Your task to perform on an android device: toggle sleep mode Image 0: 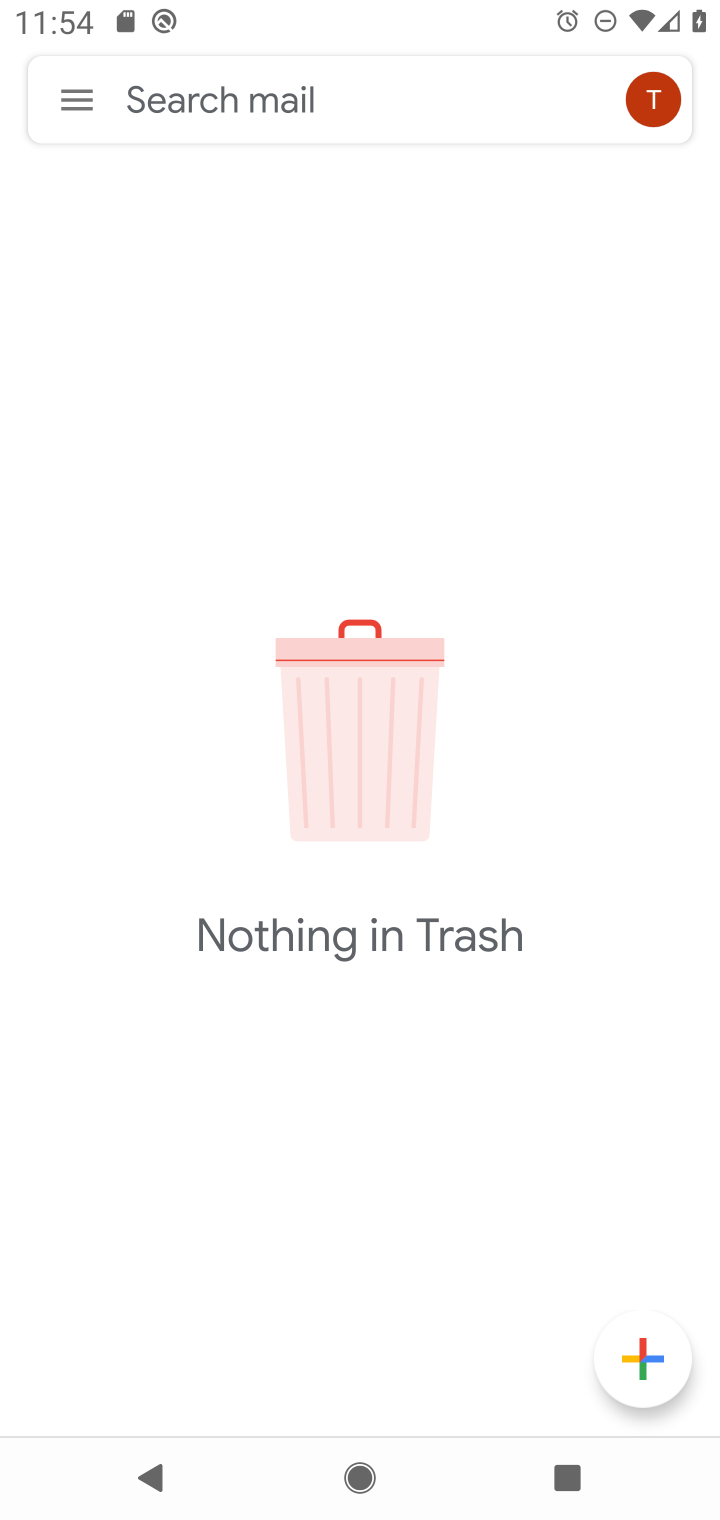
Step 0: press home button
Your task to perform on an android device: toggle sleep mode Image 1: 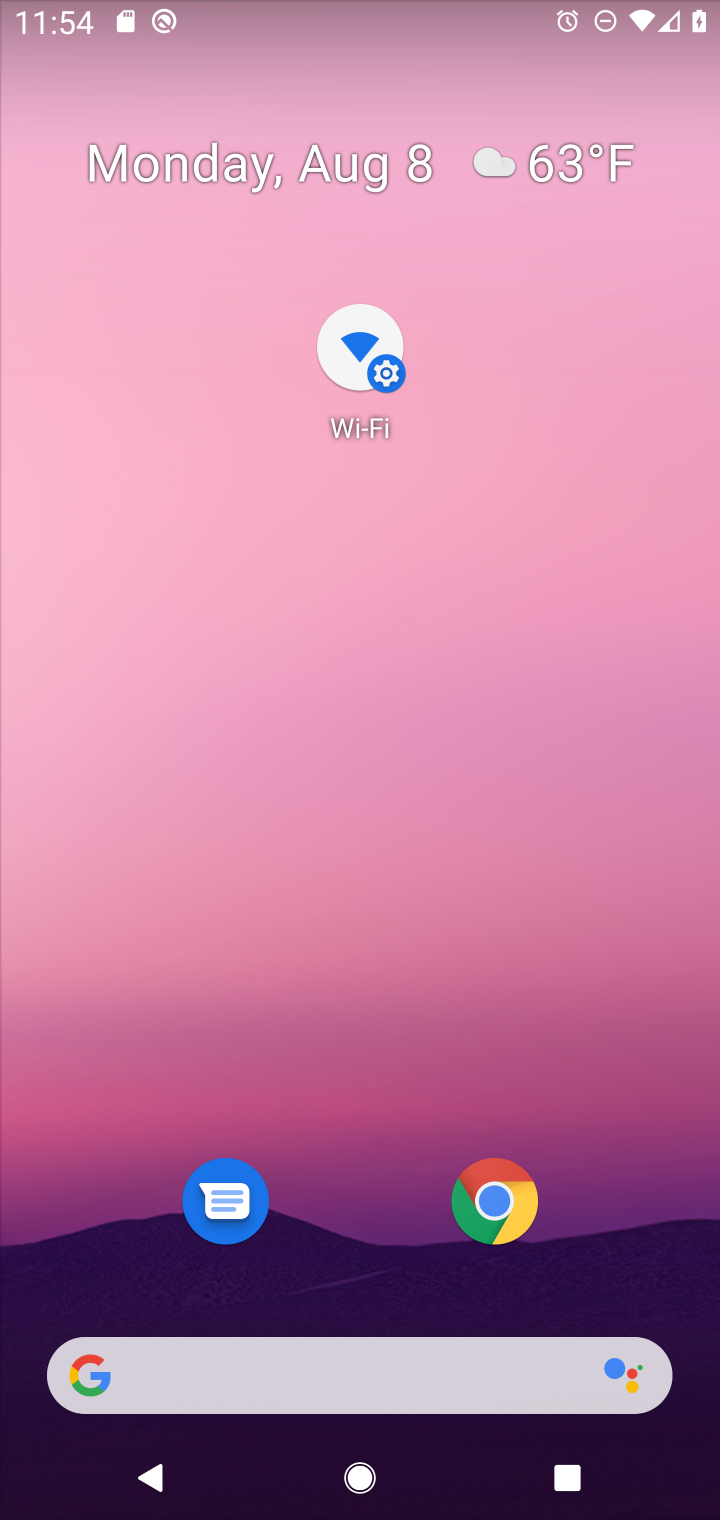
Step 1: drag from (587, 1043) to (602, 288)
Your task to perform on an android device: toggle sleep mode Image 2: 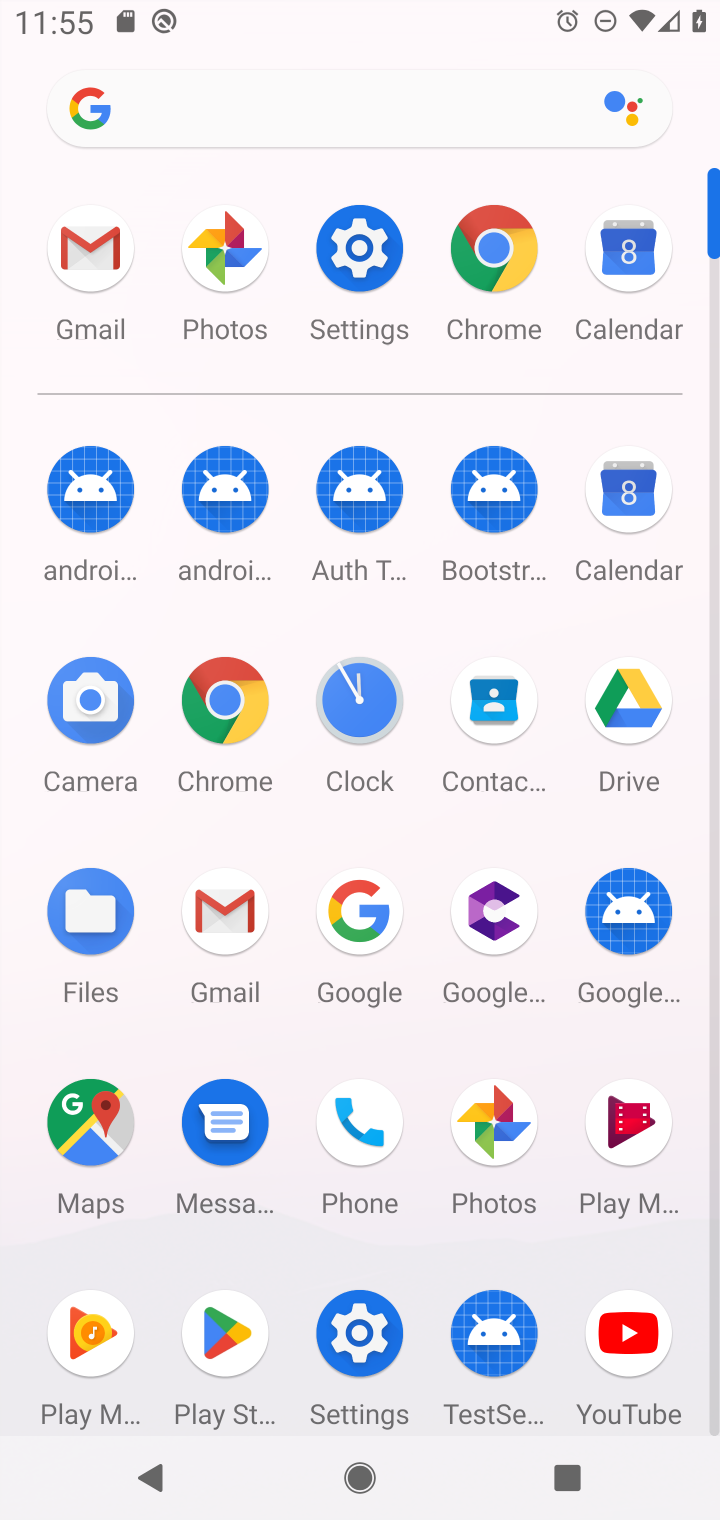
Step 2: click (363, 253)
Your task to perform on an android device: toggle sleep mode Image 3: 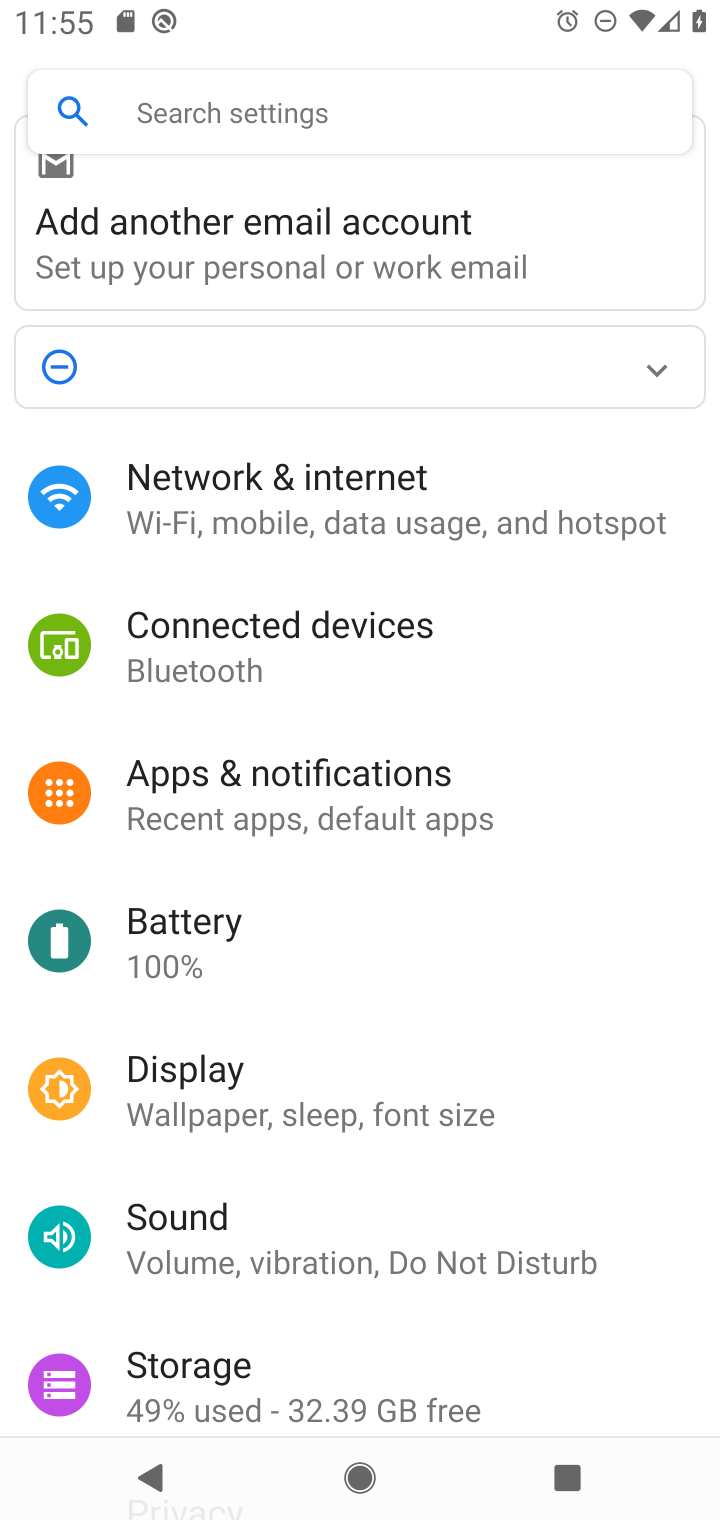
Step 3: drag from (588, 1159) to (567, 759)
Your task to perform on an android device: toggle sleep mode Image 4: 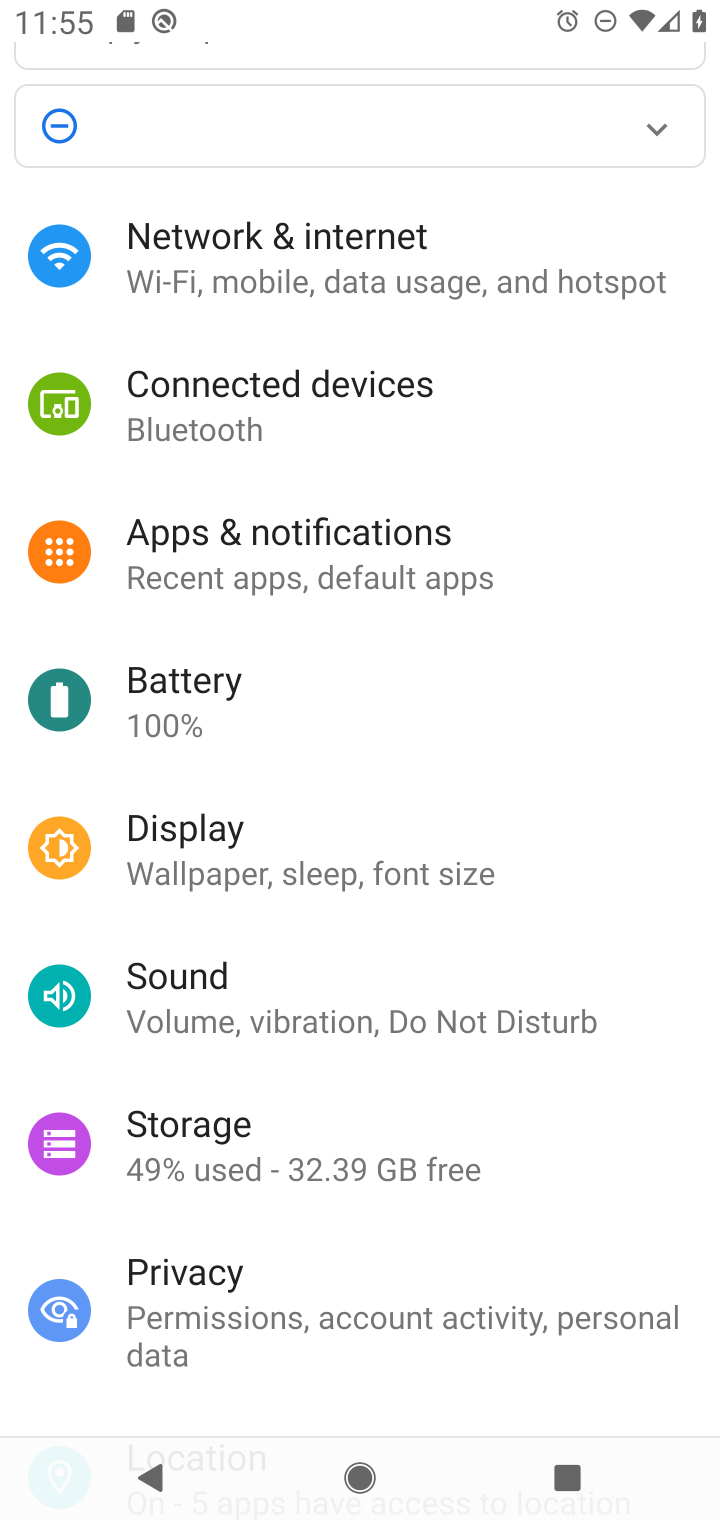
Step 4: drag from (641, 1056) to (637, 718)
Your task to perform on an android device: toggle sleep mode Image 5: 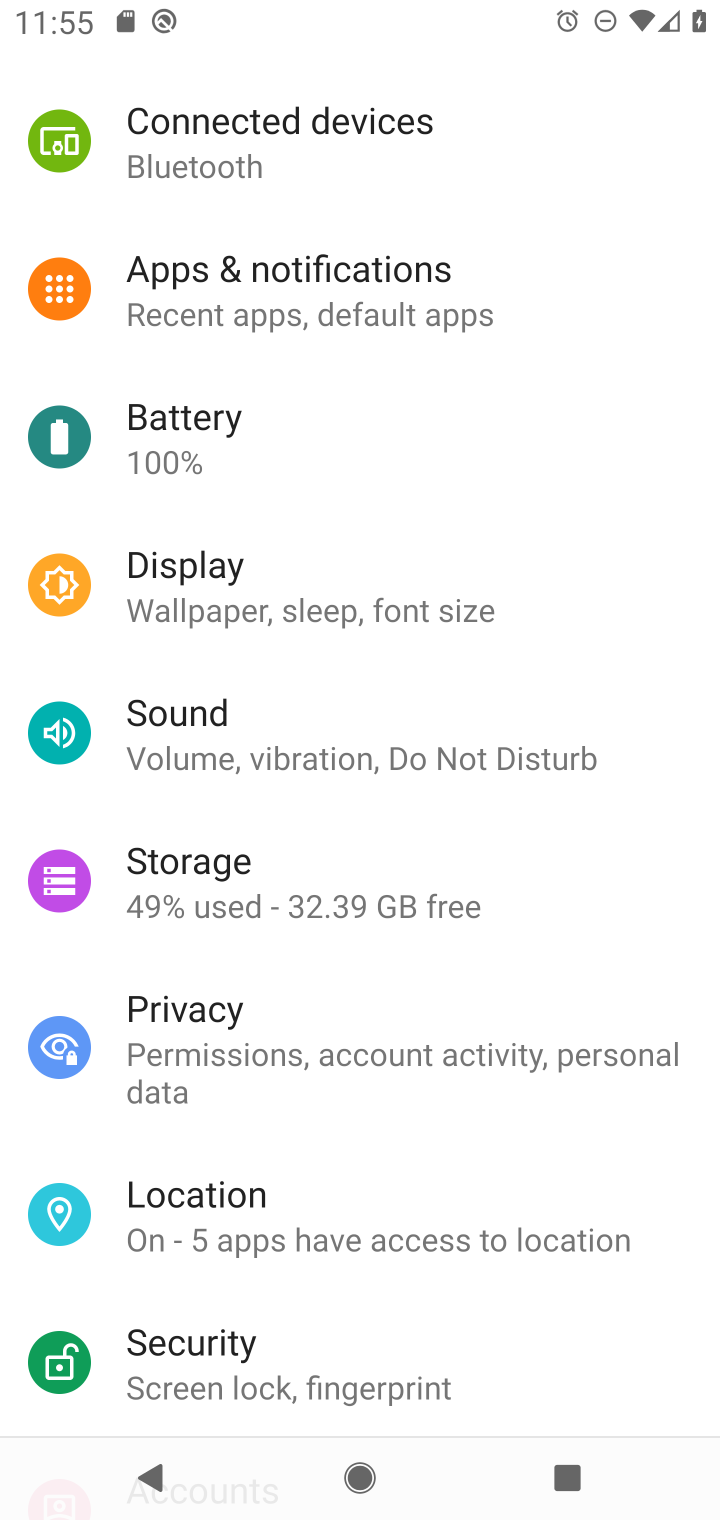
Step 5: drag from (590, 1123) to (620, 774)
Your task to perform on an android device: toggle sleep mode Image 6: 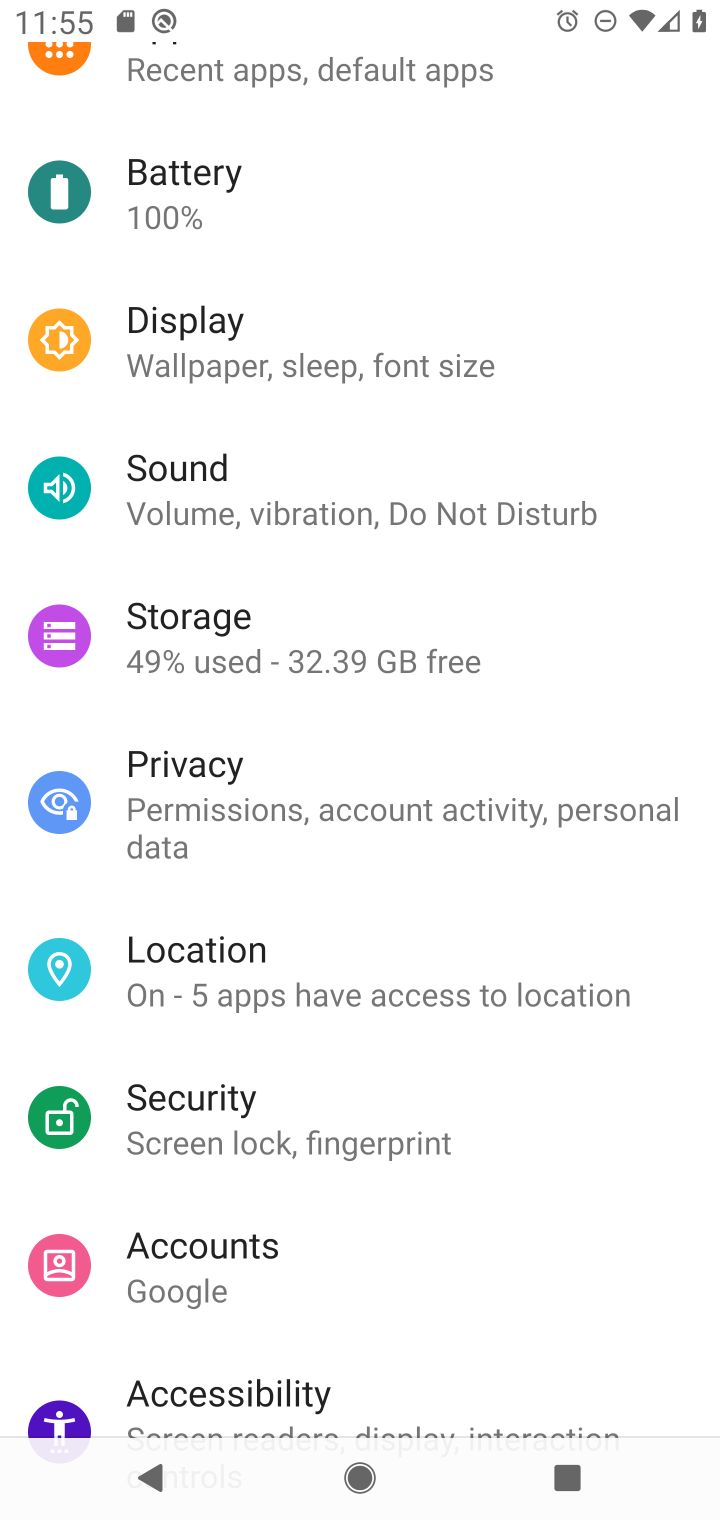
Step 6: drag from (595, 1196) to (606, 722)
Your task to perform on an android device: toggle sleep mode Image 7: 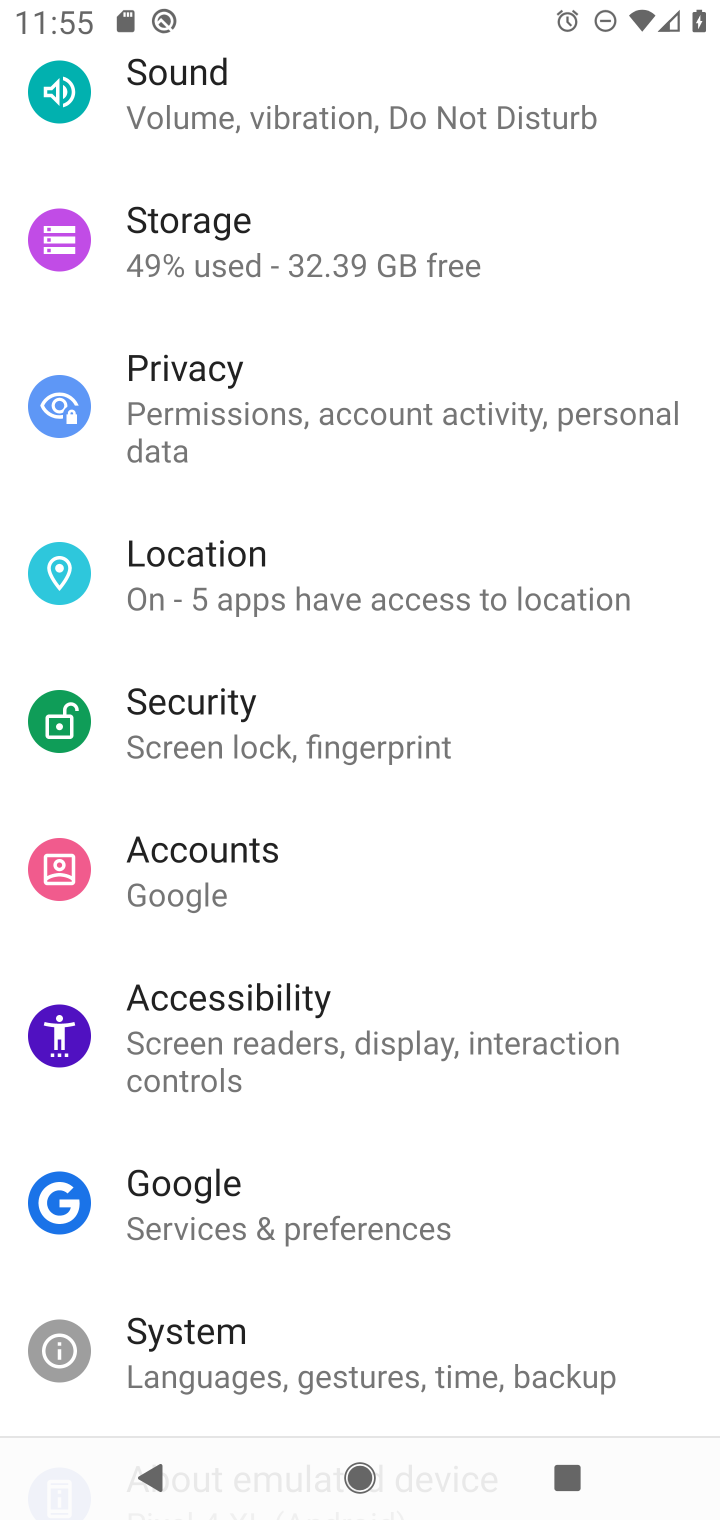
Step 7: drag from (544, 1157) to (608, 690)
Your task to perform on an android device: toggle sleep mode Image 8: 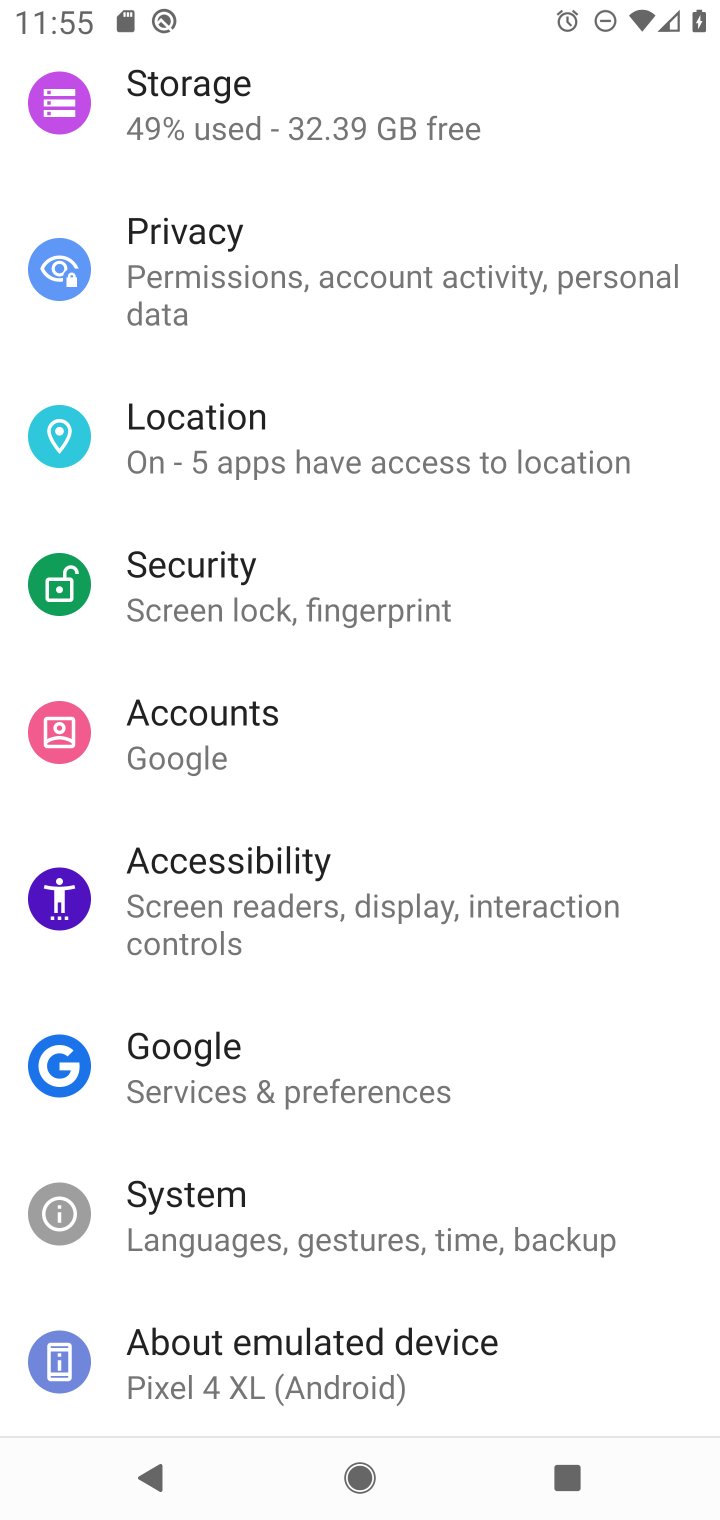
Step 8: drag from (610, 1056) to (609, 662)
Your task to perform on an android device: toggle sleep mode Image 9: 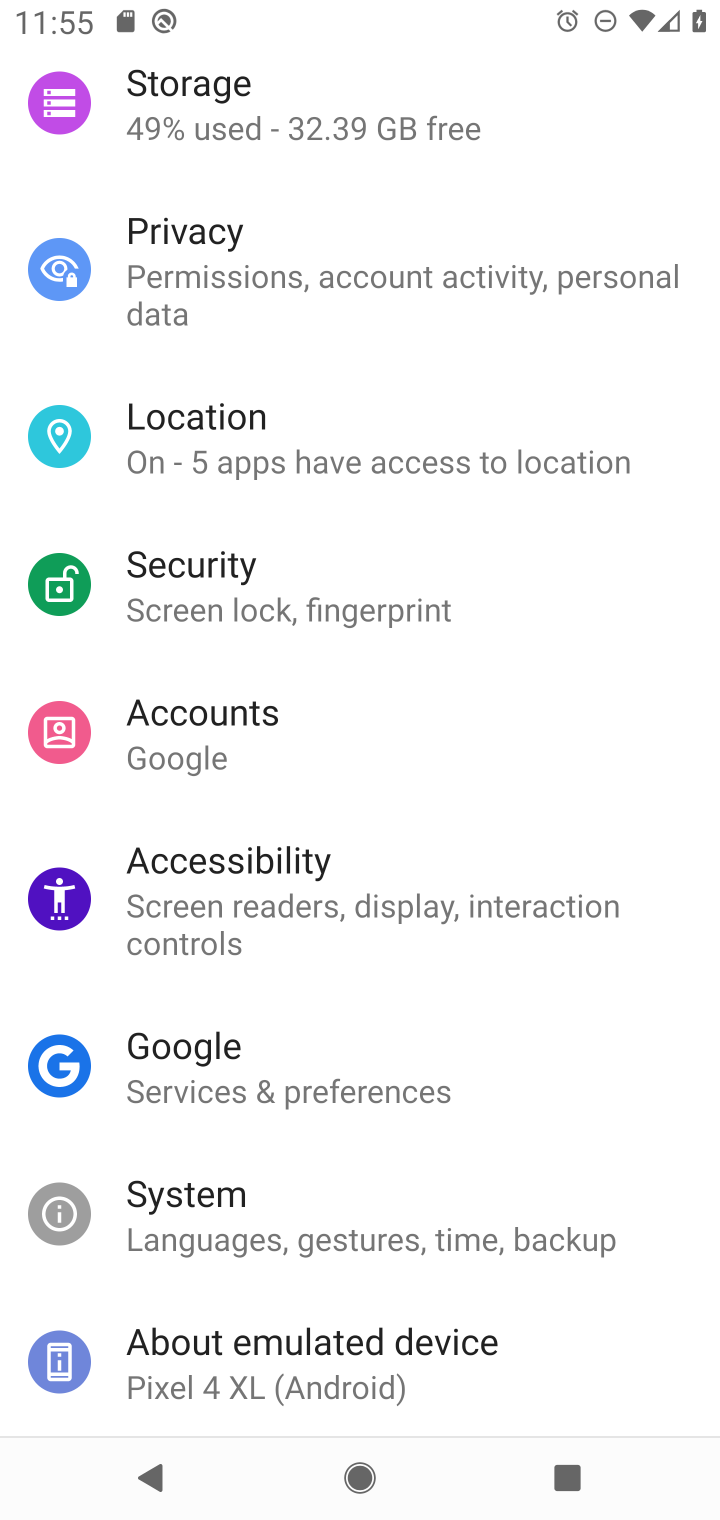
Step 9: drag from (624, 550) to (651, 830)
Your task to perform on an android device: toggle sleep mode Image 10: 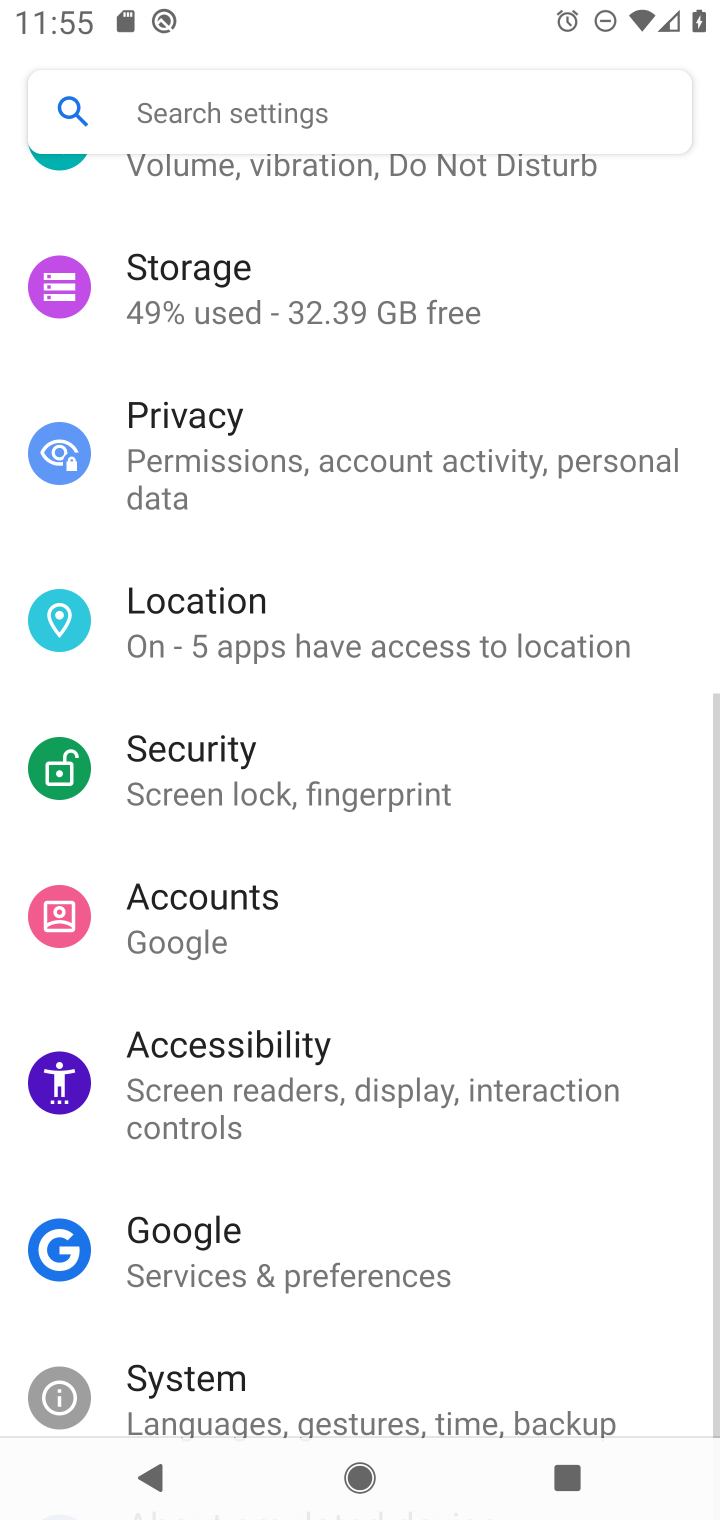
Step 10: drag from (654, 587) to (674, 962)
Your task to perform on an android device: toggle sleep mode Image 11: 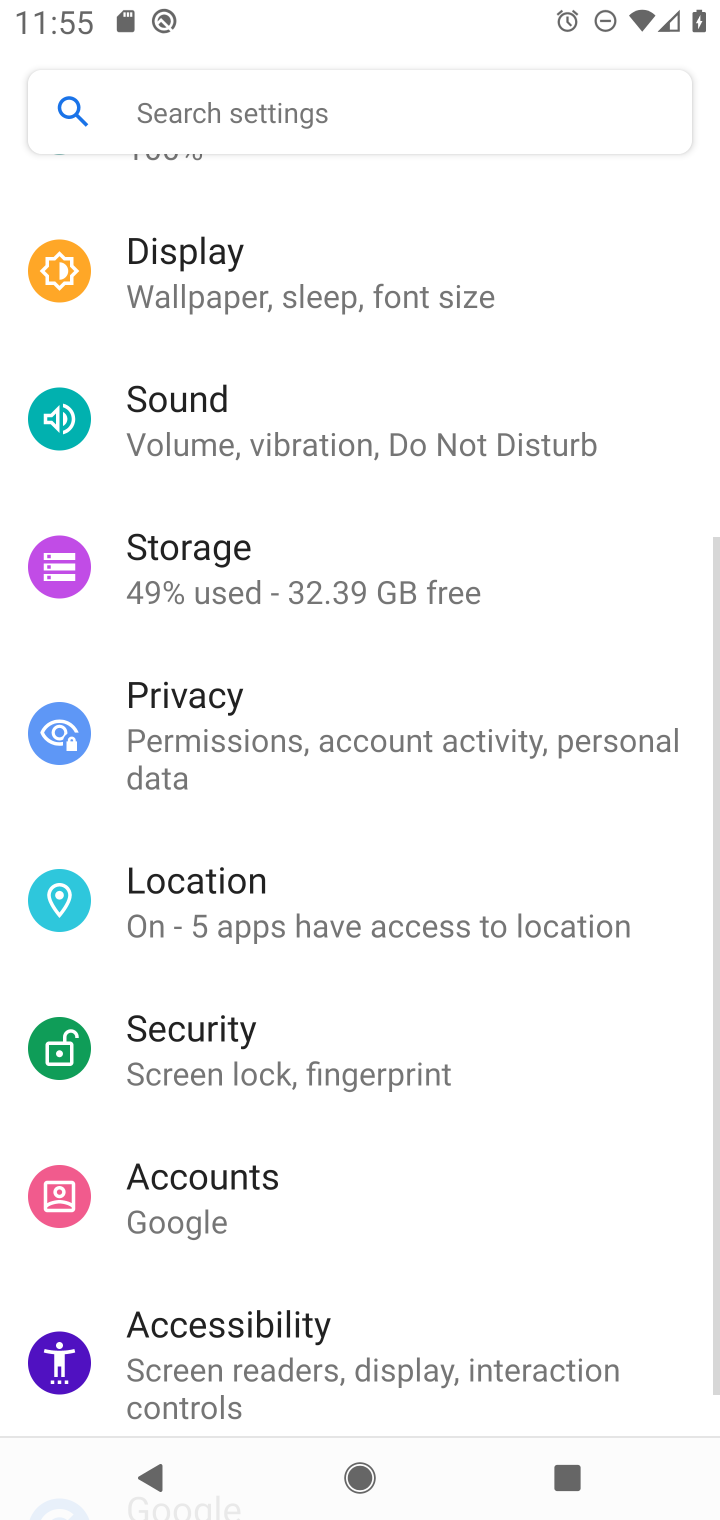
Step 11: drag from (637, 272) to (643, 718)
Your task to perform on an android device: toggle sleep mode Image 12: 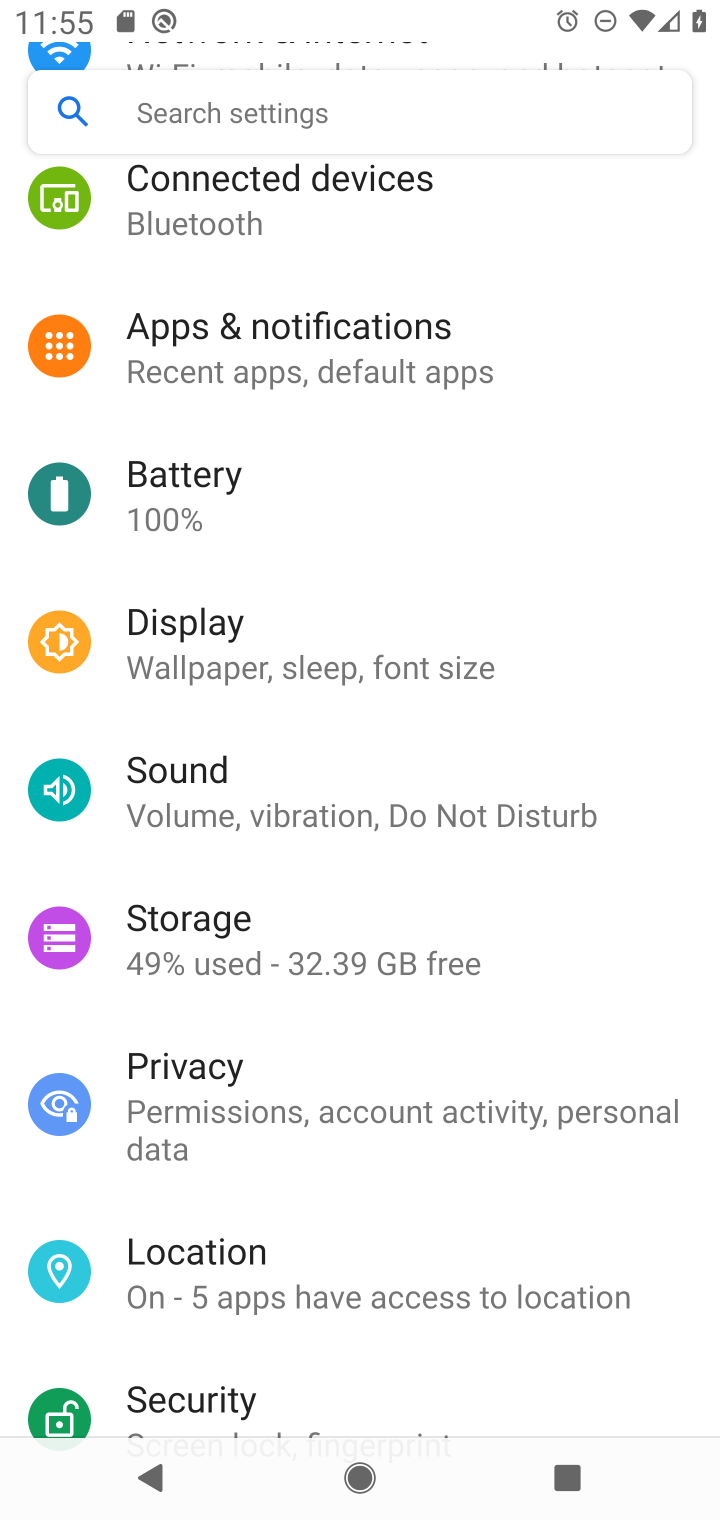
Step 12: click (360, 663)
Your task to perform on an android device: toggle sleep mode Image 13: 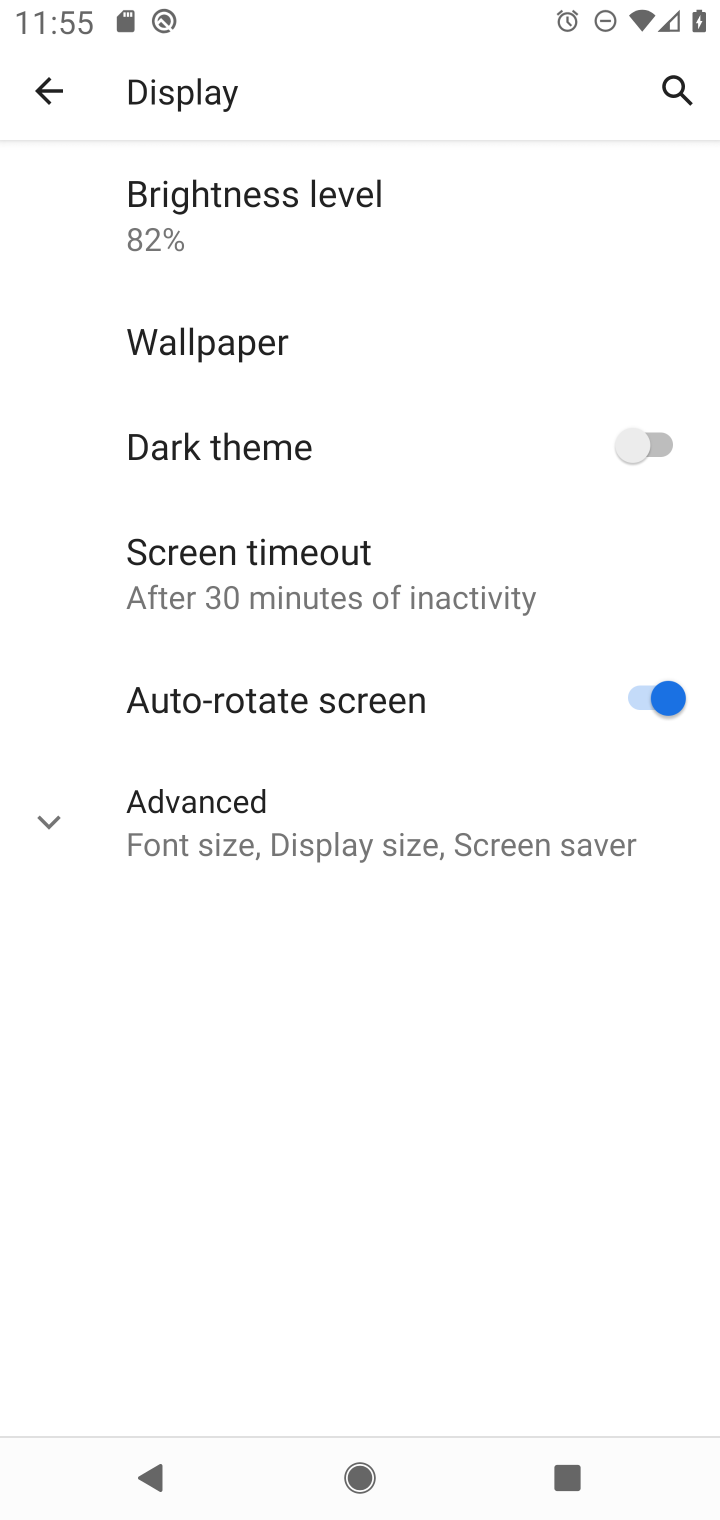
Step 13: click (388, 845)
Your task to perform on an android device: toggle sleep mode Image 14: 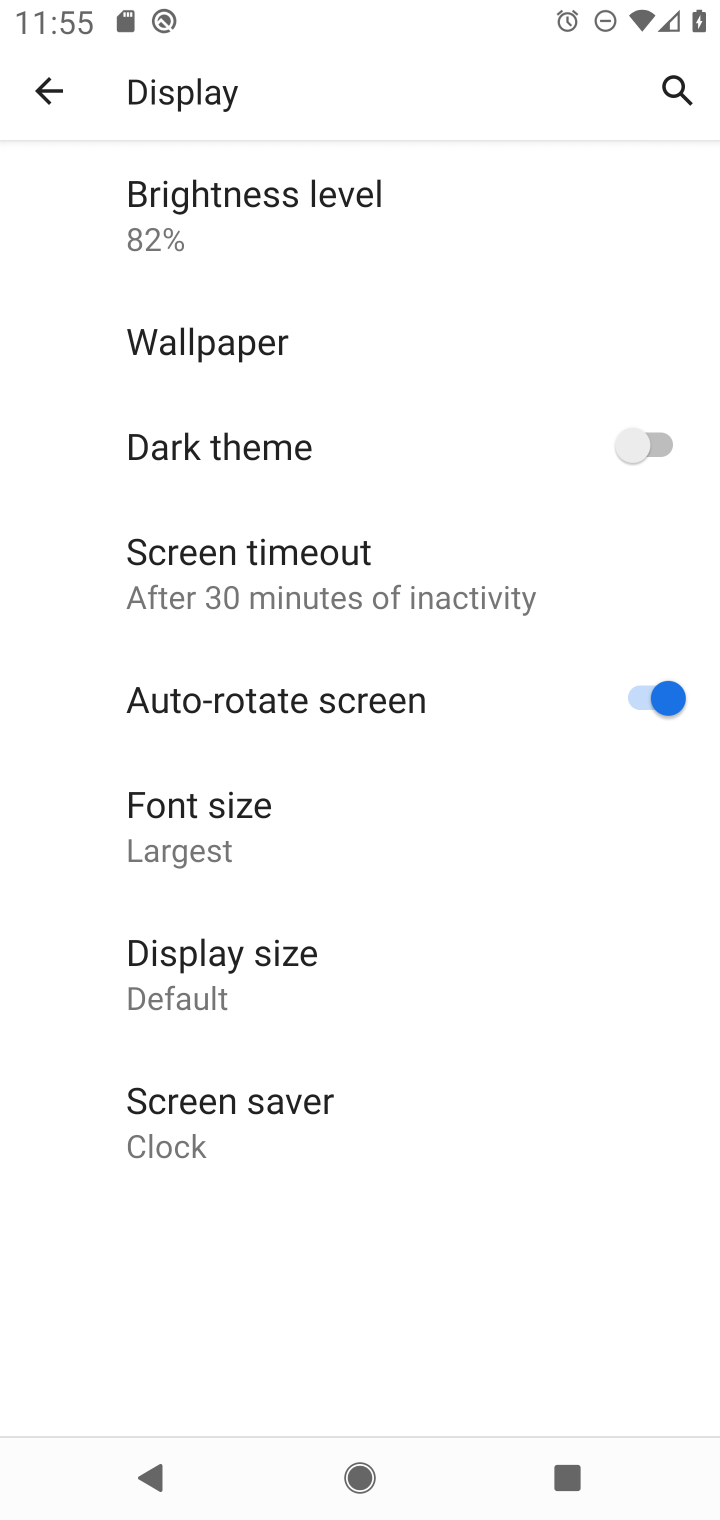
Step 14: task complete